Your task to perform on an android device: How much does a 3 bedroom apartment rent for in Philadelphia? Image 0: 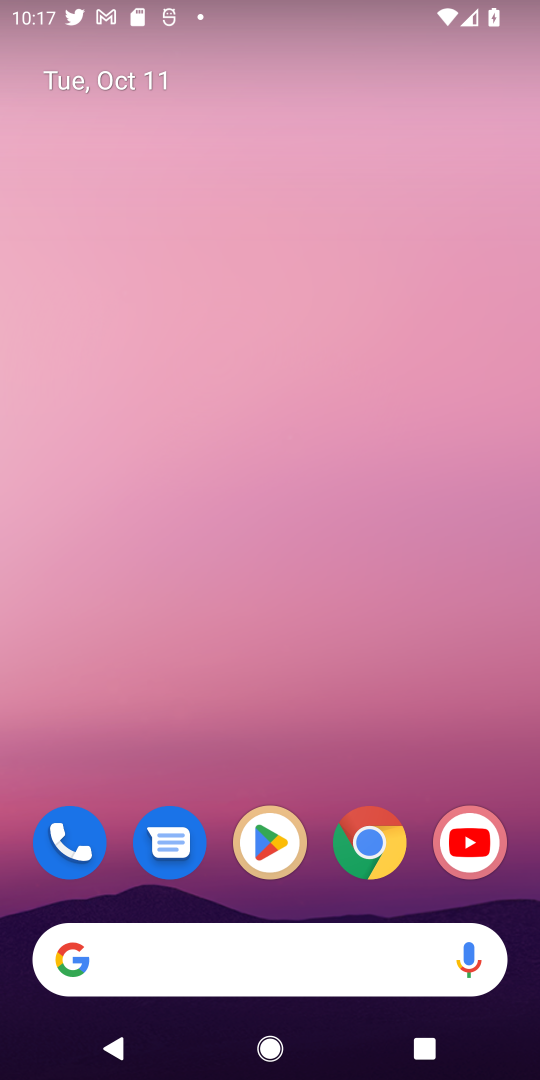
Step 0: click (370, 851)
Your task to perform on an android device: How much does a 3 bedroom apartment rent for in Philadelphia? Image 1: 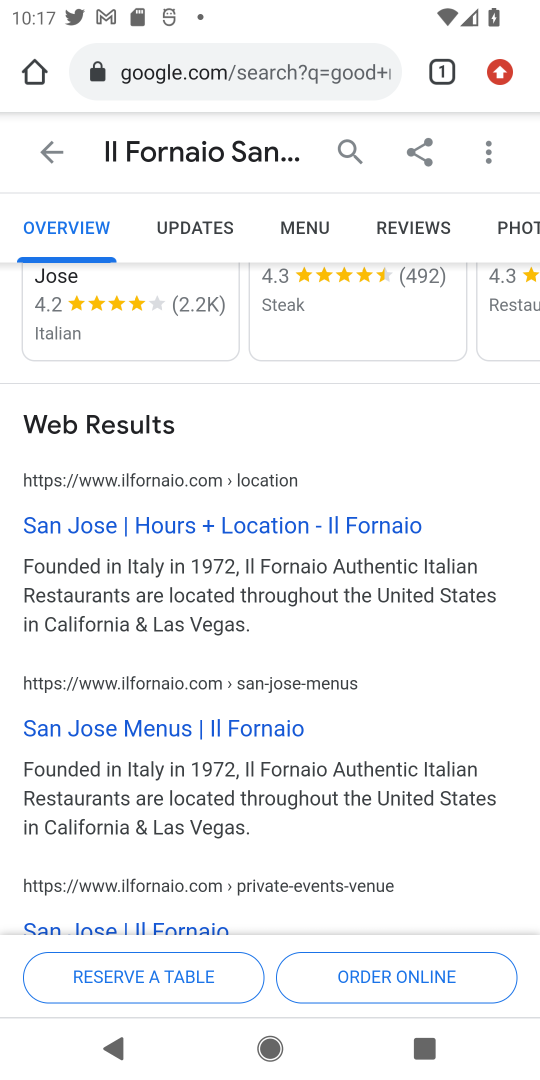
Step 1: click (276, 69)
Your task to perform on an android device: How much does a 3 bedroom apartment rent for in Philadelphia? Image 2: 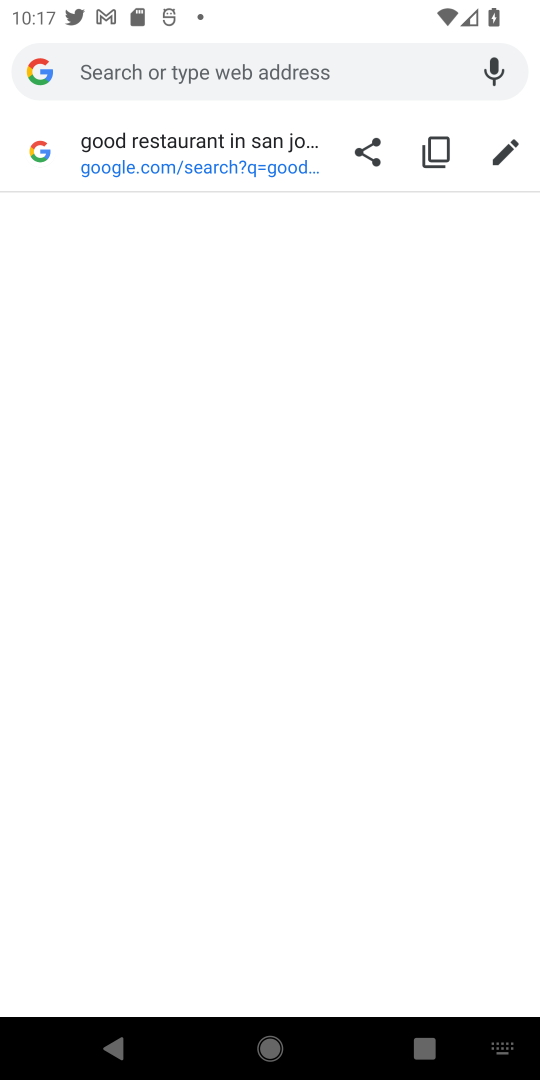
Step 2: type "3 bedroom apartment rent for philadelphia"
Your task to perform on an android device: How much does a 3 bedroom apartment rent for in Philadelphia? Image 3: 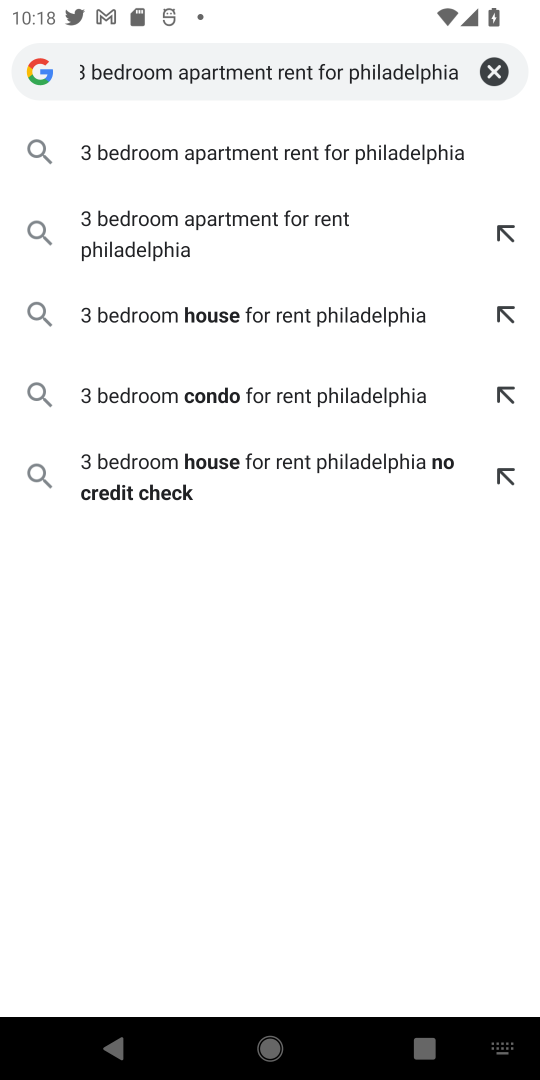
Step 3: click (298, 152)
Your task to perform on an android device: How much does a 3 bedroom apartment rent for in Philadelphia? Image 4: 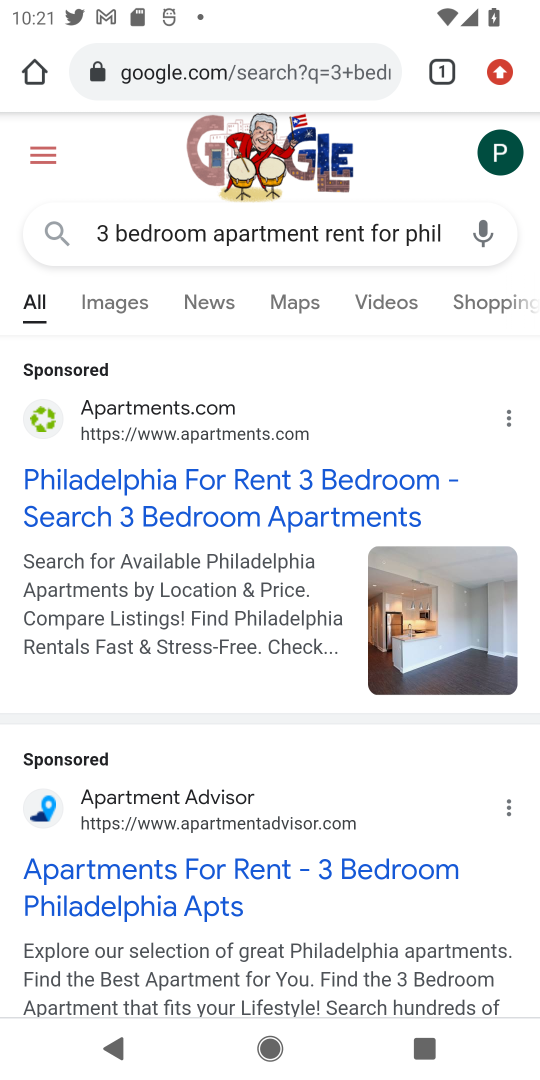
Step 4: click (217, 479)
Your task to perform on an android device: How much does a 3 bedroom apartment rent for in Philadelphia? Image 5: 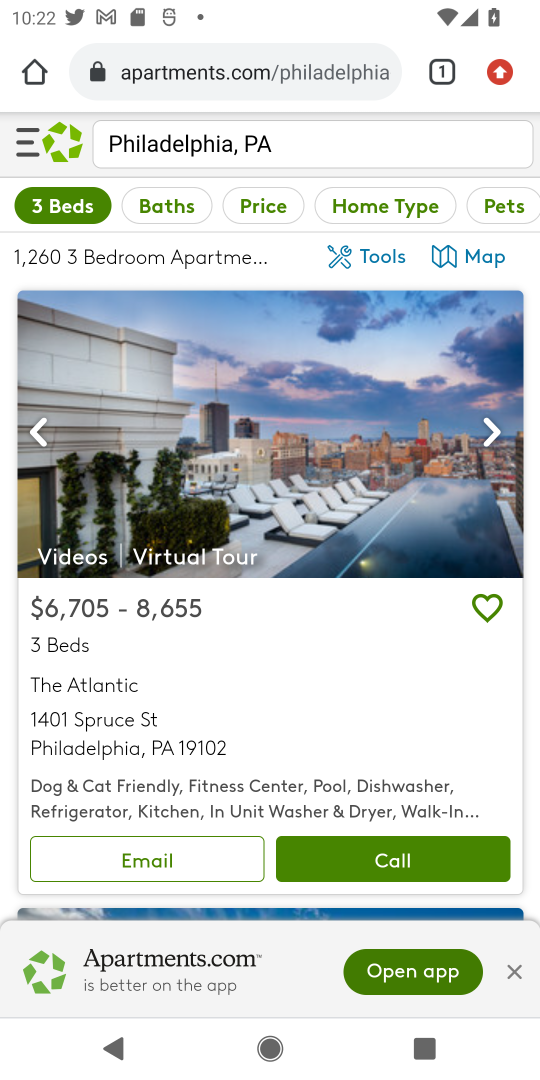
Step 5: drag from (203, 596) to (268, 228)
Your task to perform on an android device: How much does a 3 bedroom apartment rent for in Philadelphia? Image 6: 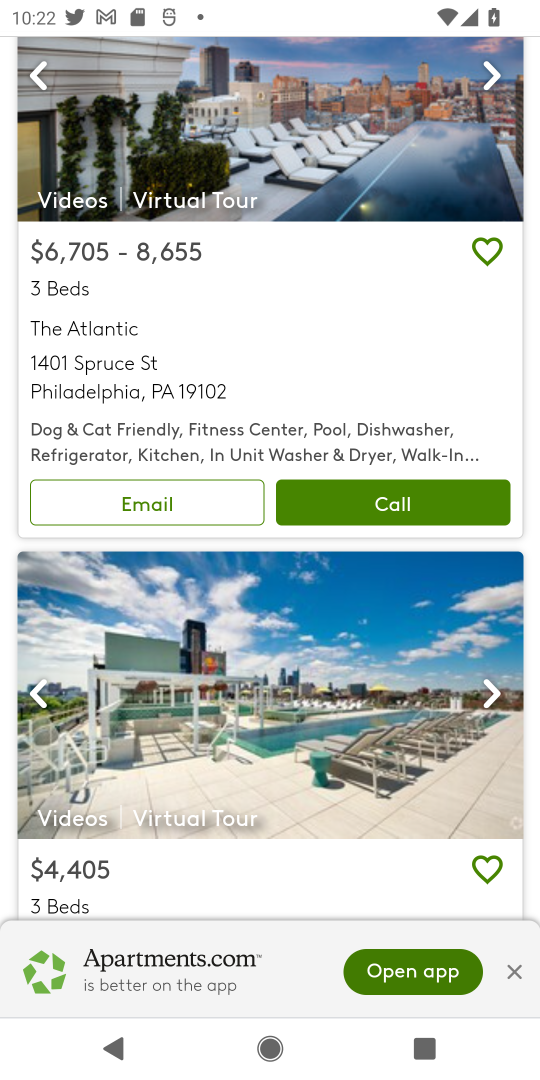
Step 6: click (520, 974)
Your task to perform on an android device: How much does a 3 bedroom apartment rent for in Philadelphia? Image 7: 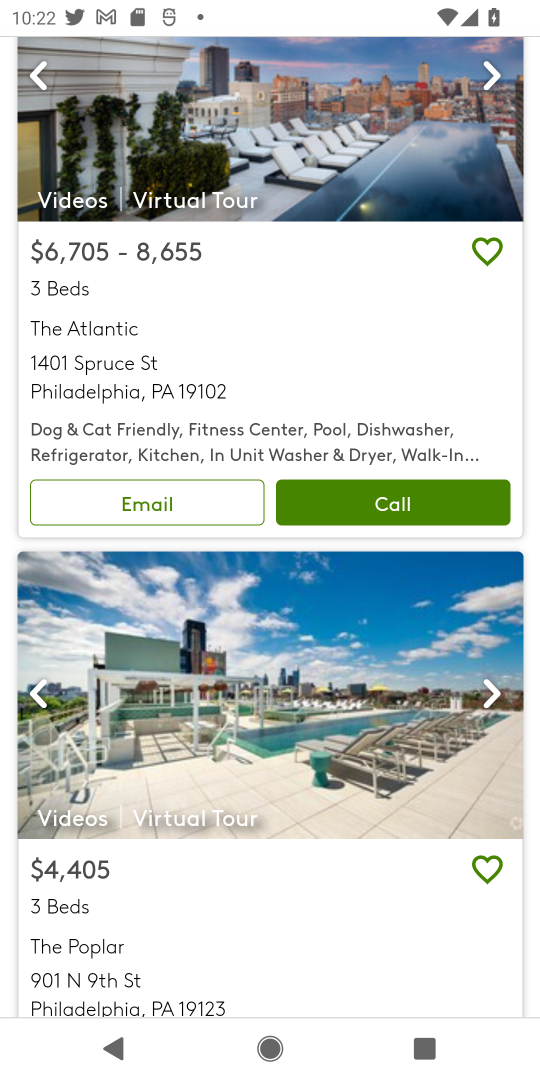
Step 7: task complete